Your task to perform on an android device: toggle javascript in the chrome app Image 0: 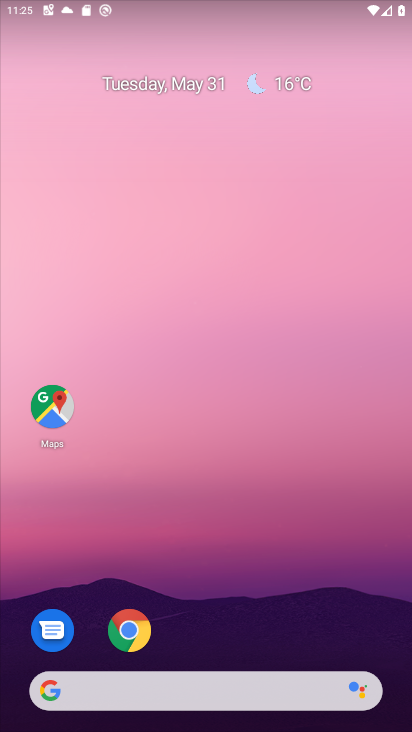
Step 0: drag from (270, 443) to (247, 171)
Your task to perform on an android device: toggle javascript in the chrome app Image 1: 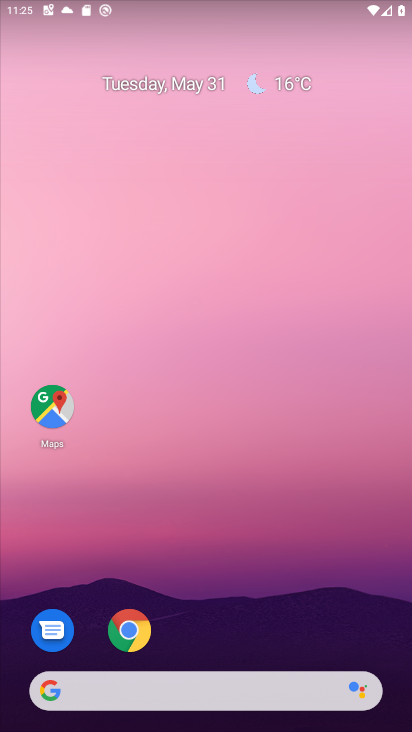
Step 1: drag from (298, 454) to (243, 84)
Your task to perform on an android device: toggle javascript in the chrome app Image 2: 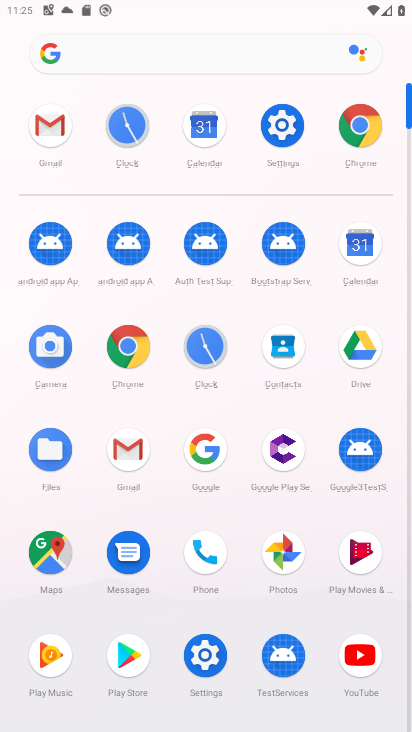
Step 2: click (361, 122)
Your task to perform on an android device: toggle javascript in the chrome app Image 3: 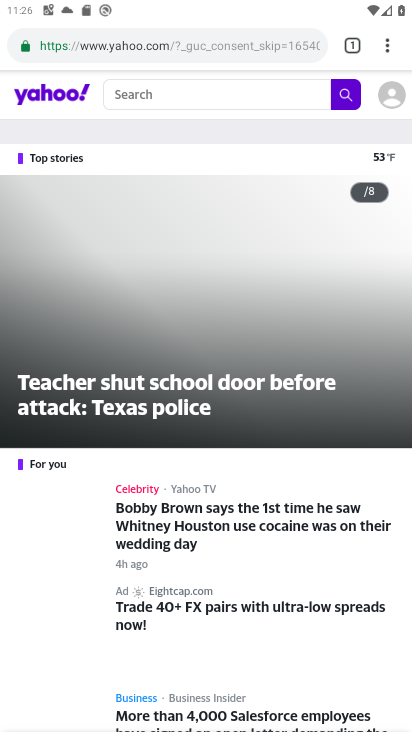
Step 3: click (390, 48)
Your task to perform on an android device: toggle javascript in the chrome app Image 4: 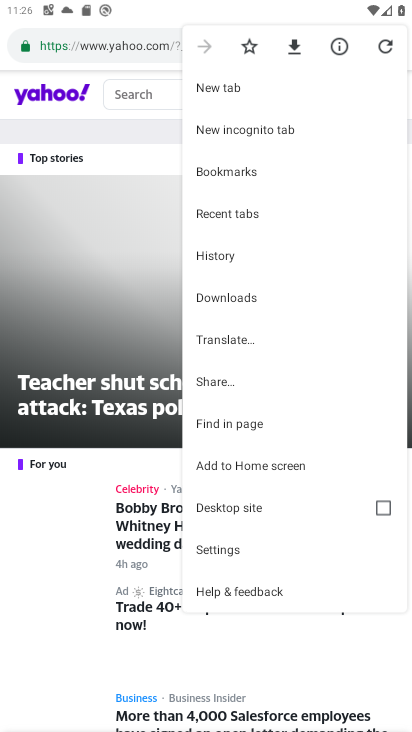
Step 4: drag from (271, 554) to (317, 178)
Your task to perform on an android device: toggle javascript in the chrome app Image 5: 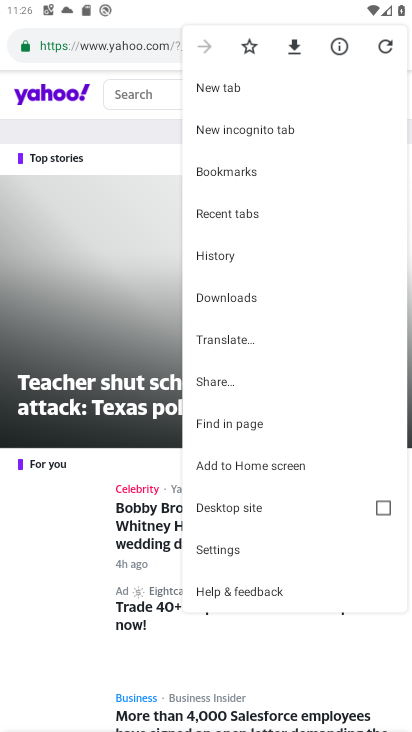
Step 5: click (227, 553)
Your task to perform on an android device: toggle javascript in the chrome app Image 6: 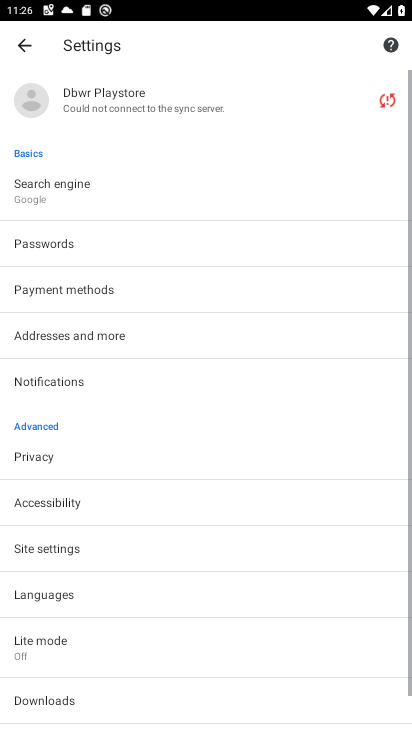
Step 6: drag from (196, 437) to (267, 97)
Your task to perform on an android device: toggle javascript in the chrome app Image 7: 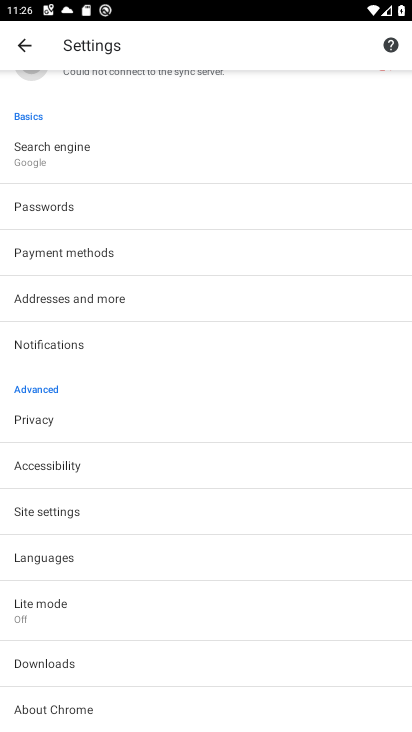
Step 7: click (74, 508)
Your task to perform on an android device: toggle javascript in the chrome app Image 8: 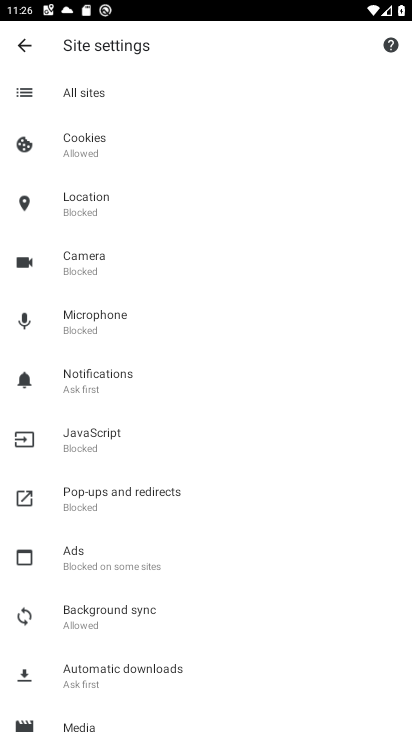
Step 8: click (110, 442)
Your task to perform on an android device: toggle javascript in the chrome app Image 9: 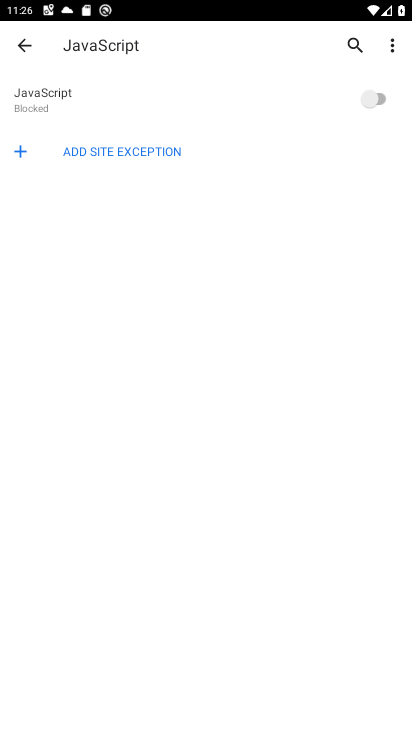
Step 9: click (374, 91)
Your task to perform on an android device: toggle javascript in the chrome app Image 10: 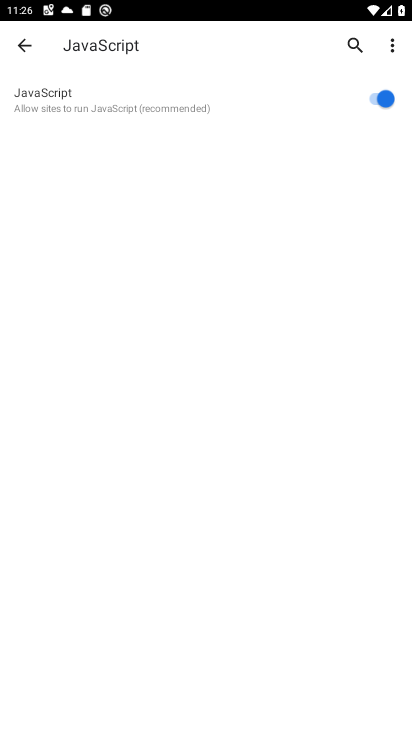
Step 10: task complete